Your task to perform on an android device: show emergency info Image 0: 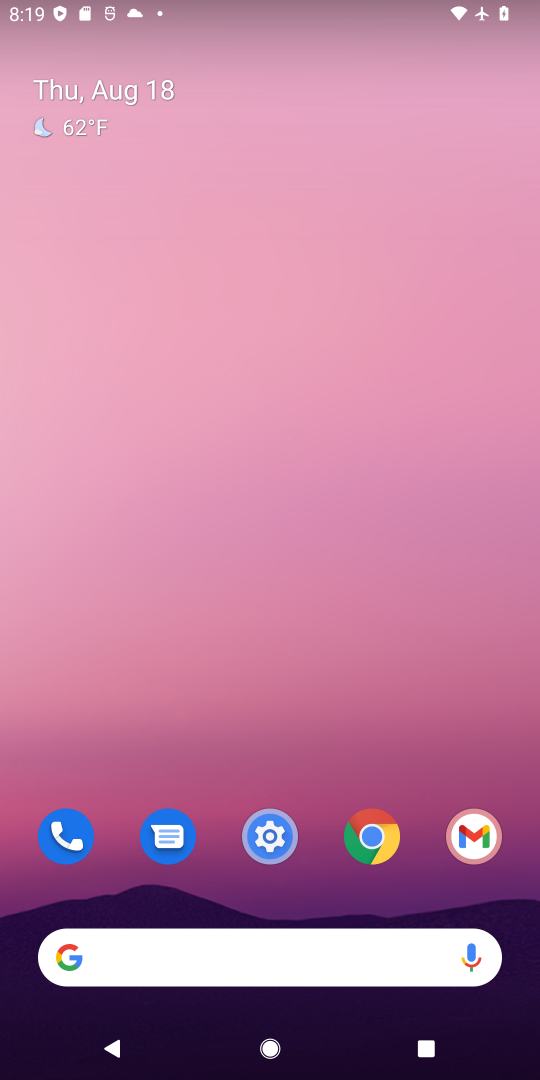
Step 0: drag from (392, 731) to (400, 106)
Your task to perform on an android device: show emergency info Image 1: 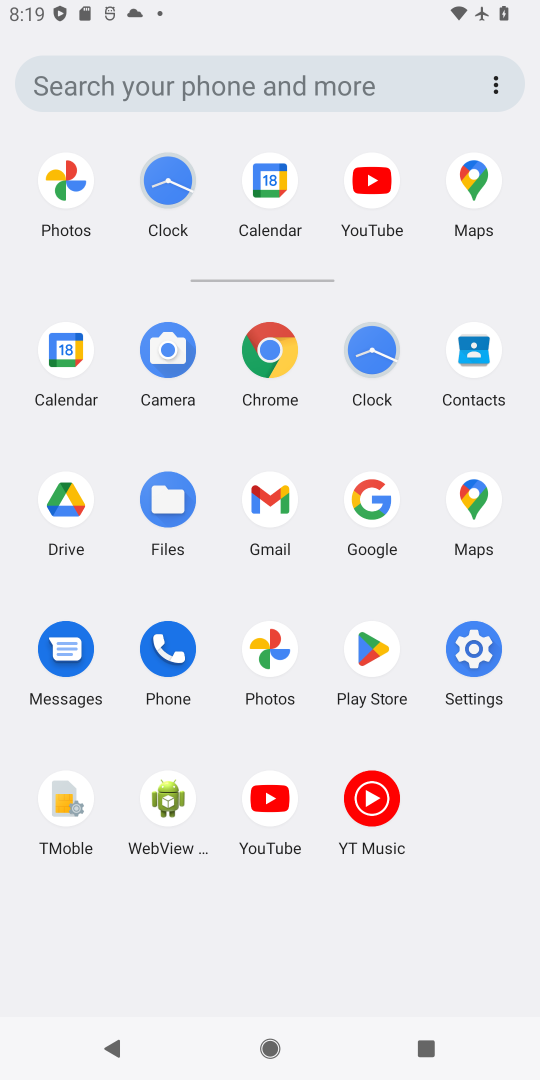
Step 1: click (467, 640)
Your task to perform on an android device: show emergency info Image 2: 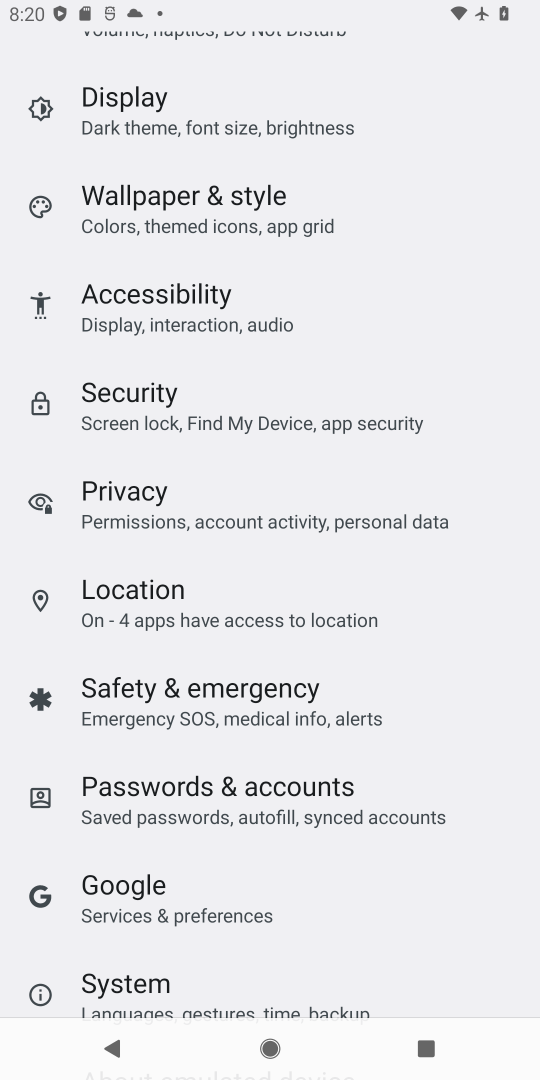
Step 2: drag from (265, 926) to (277, 32)
Your task to perform on an android device: show emergency info Image 3: 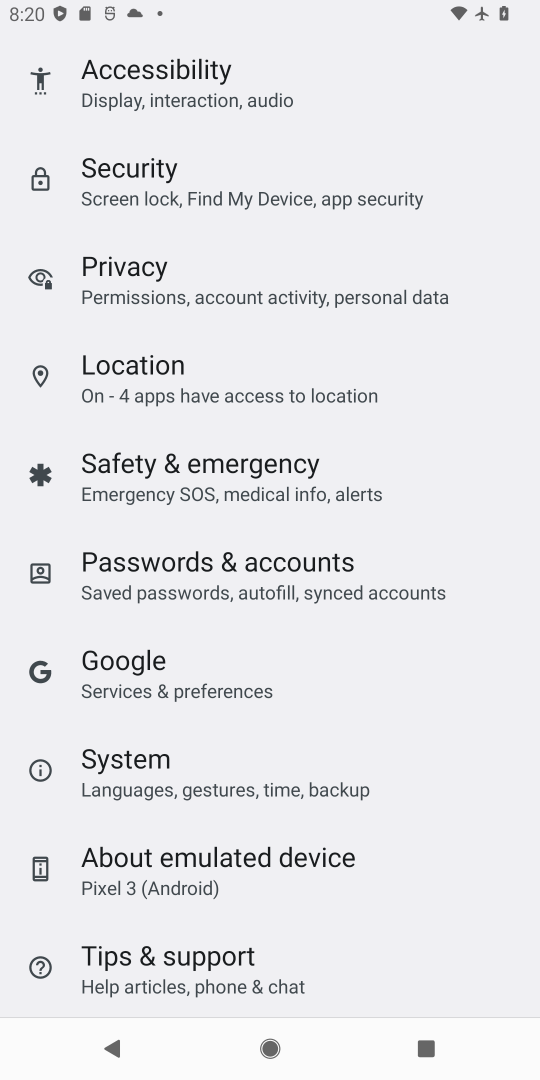
Step 3: click (242, 856)
Your task to perform on an android device: show emergency info Image 4: 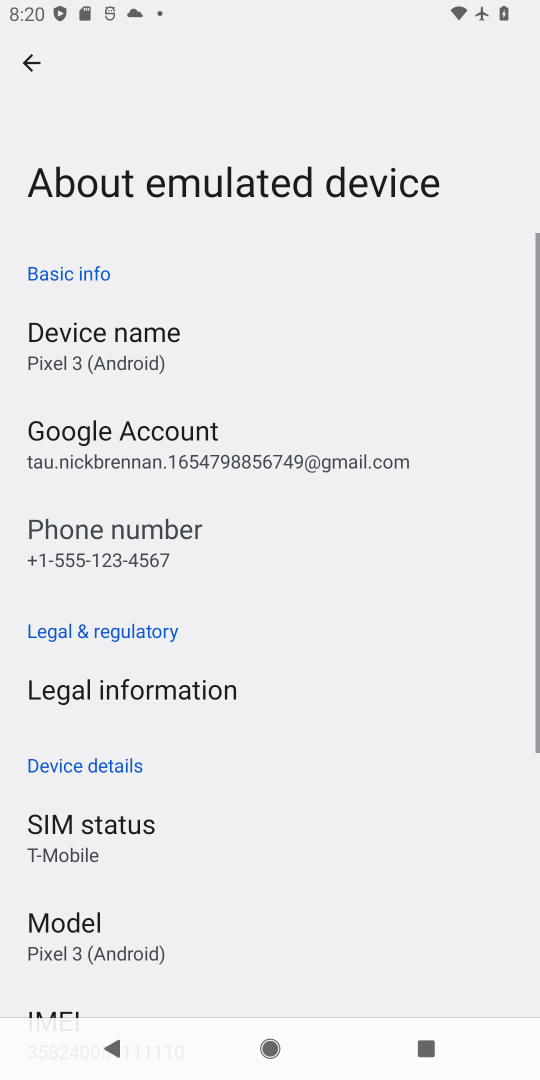
Step 4: drag from (235, 926) to (264, 231)
Your task to perform on an android device: show emergency info Image 5: 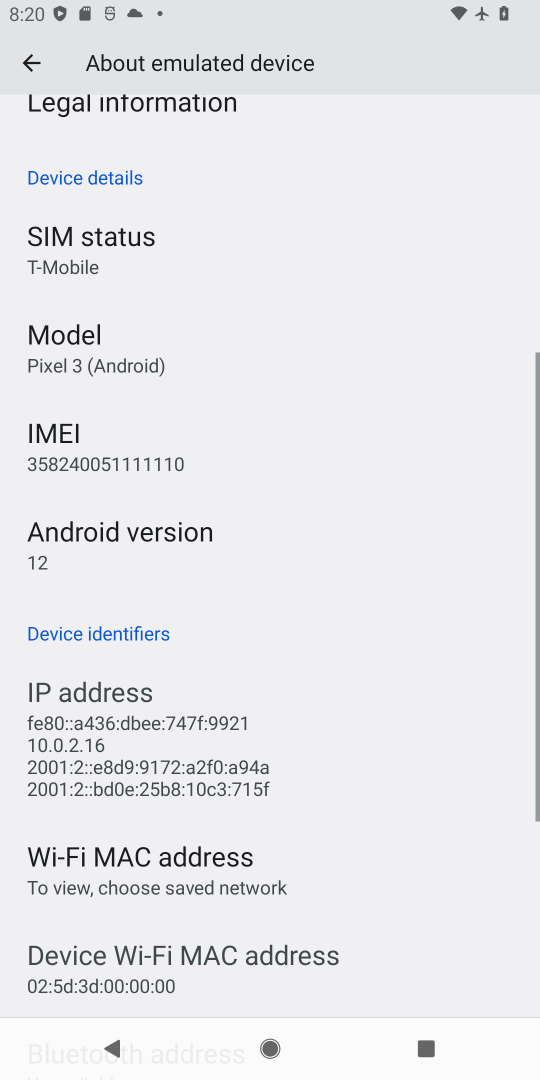
Step 5: drag from (343, 847) to (320, 186)
Your task to perform on an android device: show emergency info Image 6: 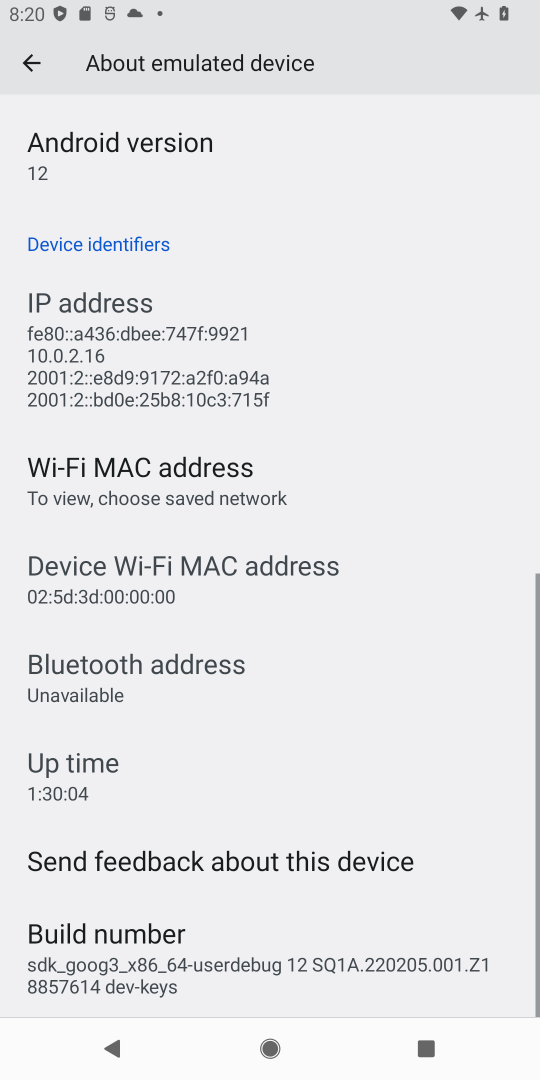
Step 6: drag from (358, 460) to (286, 1074)
Your task to perform on an android device: show emergency info Image 7: 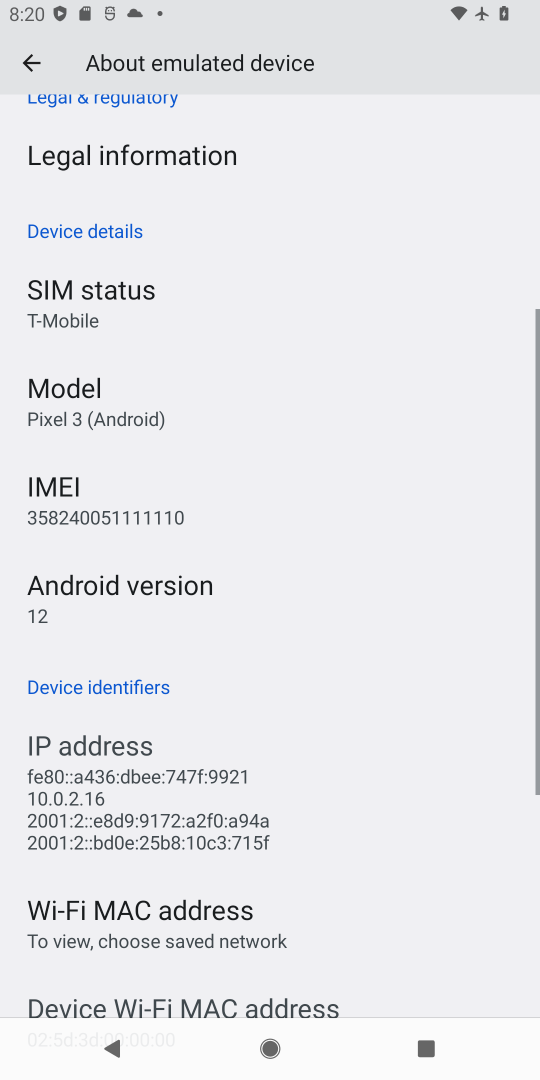
Step 7: drag from (356, 293) to (312, 954)
Your task to perform on an android device: show emergency info Image 8: 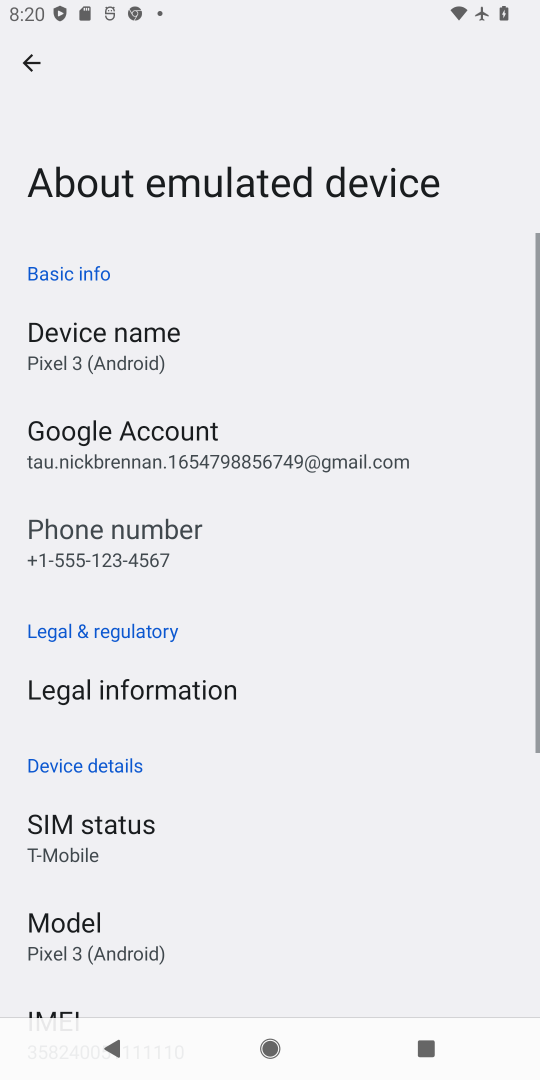
Step 8: click (185, 694)
Your task to perform on an android device: show emergency info Image 9: 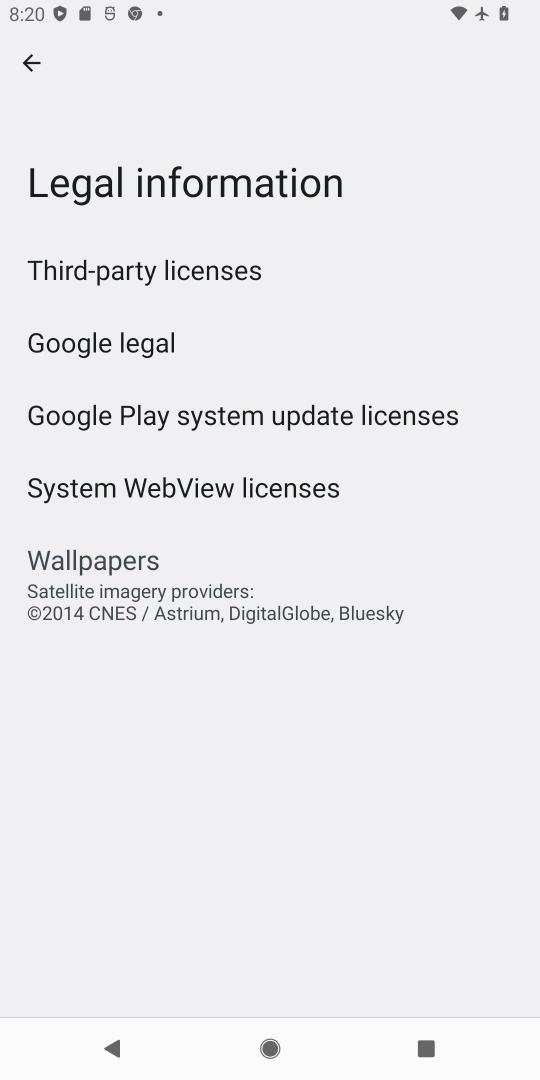
Step 9: click (21, 69)
Your task to perform on an android device: show emergency info Image 10: 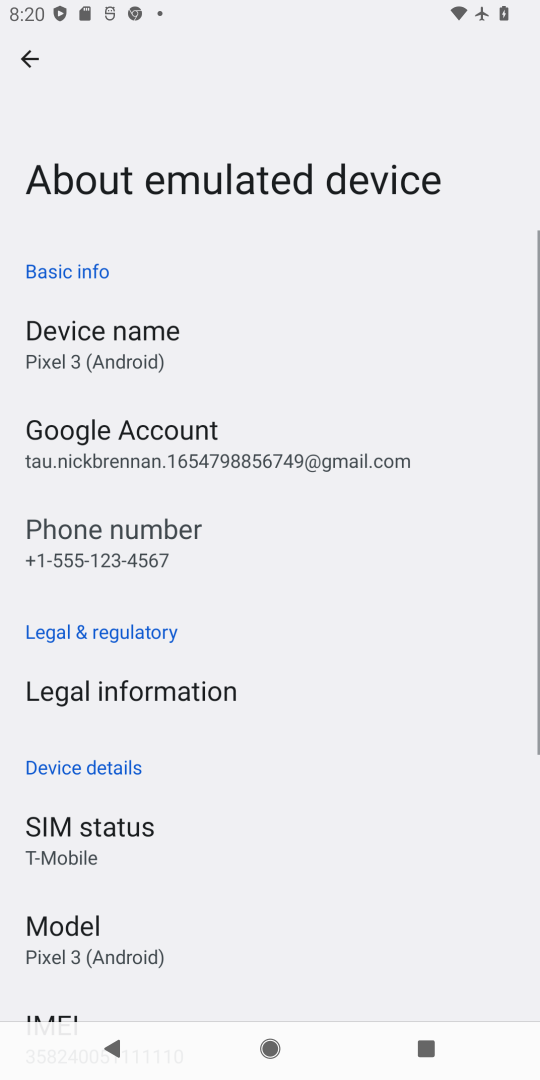
Step 10: click (24, 67)
Your task to perform on an android device: show emergency info Image 11: 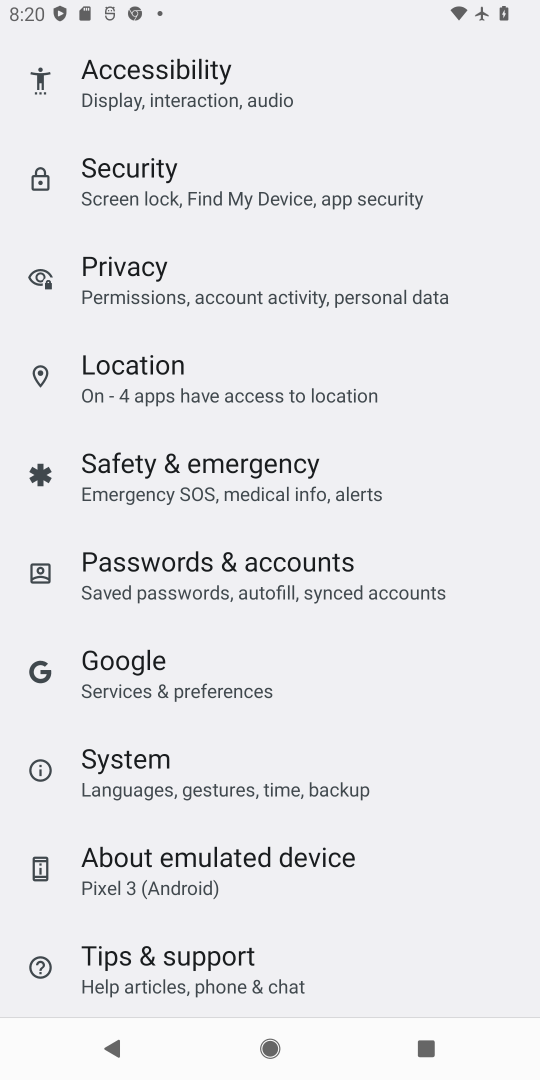
Step 11: click (216, 482)
Your task to perform on an android device: show emergency info Image 12: 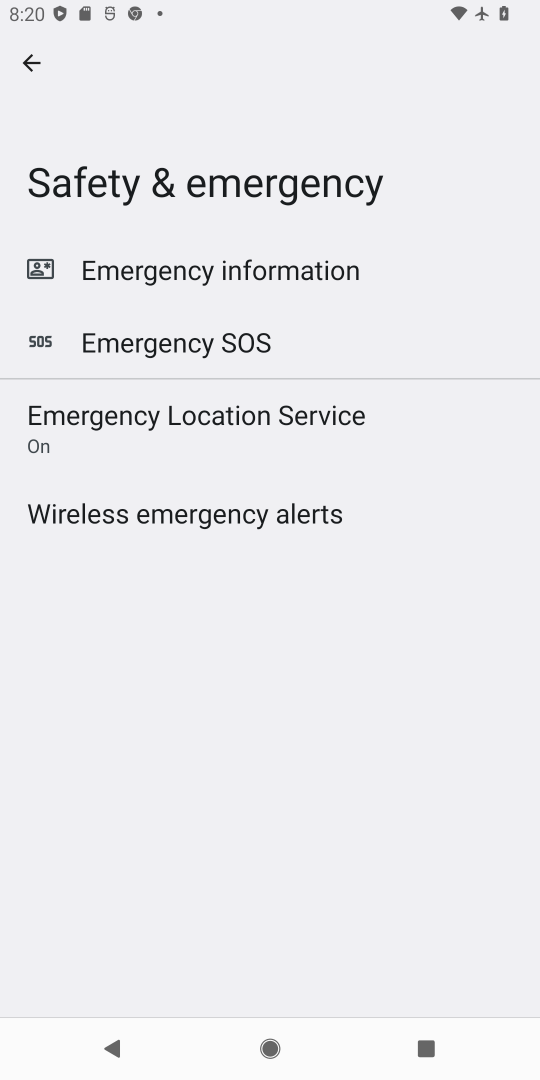
Step 12: click (212, 279)
Your task to perform on an android device: show emergency info Image 13: 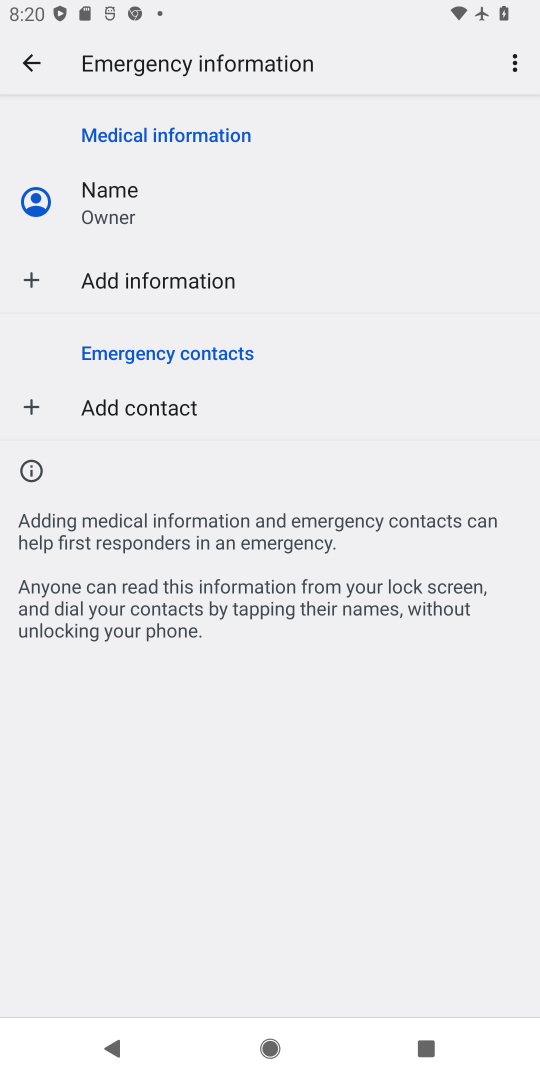
Step 13: task complete